Your task to perform on an android device: Go to privacy settings Image 0: 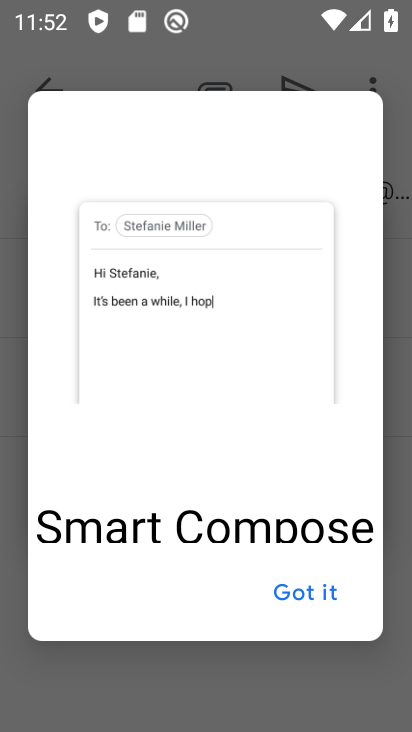
Step 0: click (306, 604)
Your task to perform on an android device: Go to privacy settings Image 1: 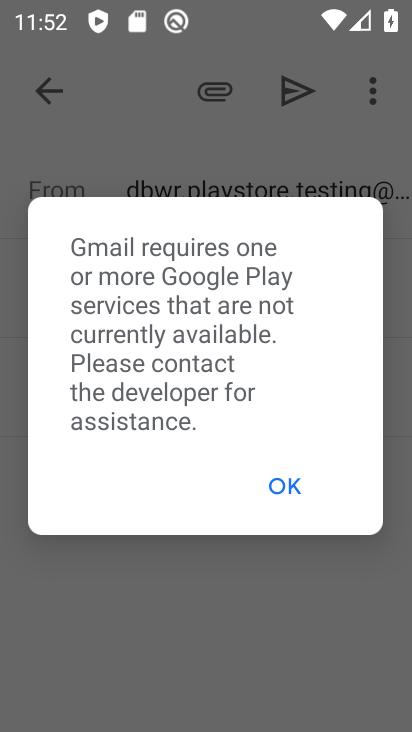
Step 1: press home button
Your task to perform on an android device: Go to privacy settings Image 2: 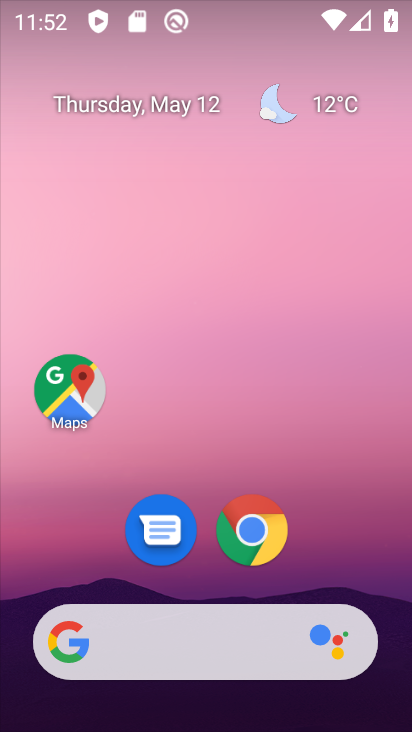
Step 2: drag from (373, 493) to (342, 89)
Your task to perform on an android device: Go to privacy settings Image 3: 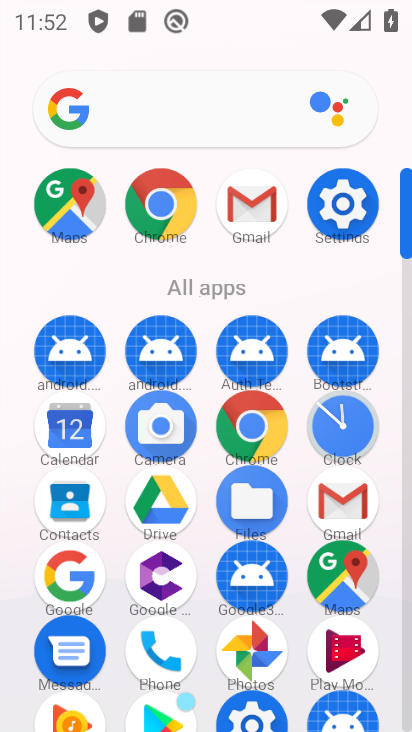
Step 3: click (352, 230)
Your task to perform on an android device: Go to privacy settings Image 4: 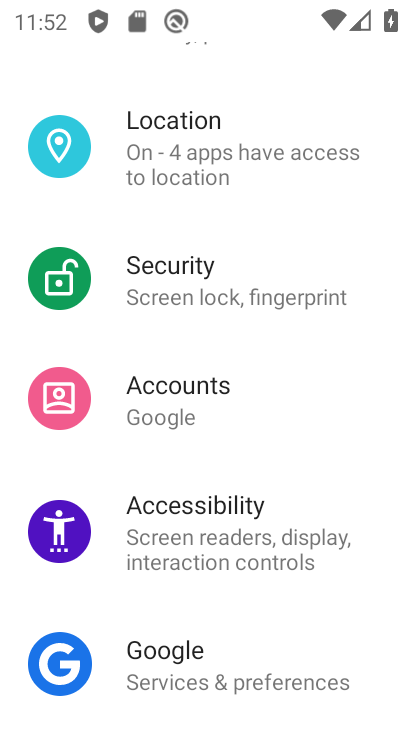
Step 4: drag from (302, 226) to (273, 630)
Your task to perform on an android device: Go to privacy settings Image 5: 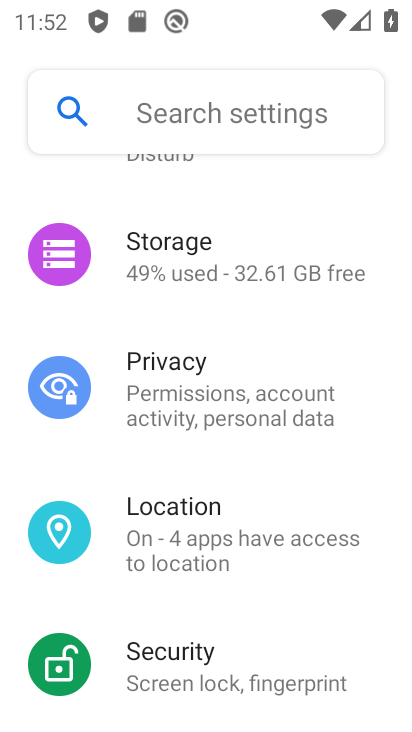
Step 5: click (227, 390)
Your task to perform on an android device: Go to privacy settings Image 6: 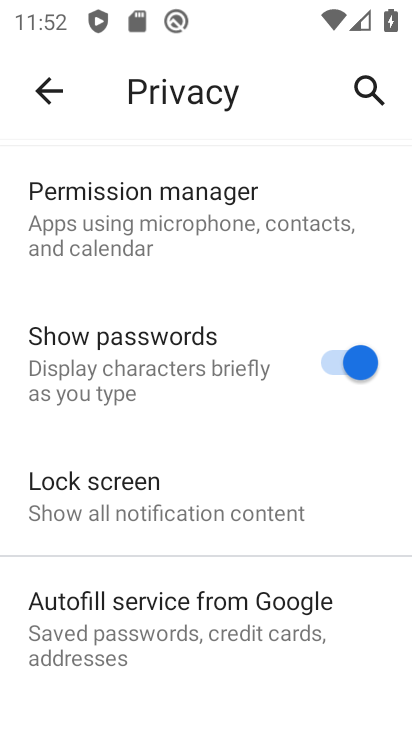
Step 6: task complete